Your task to perform on an android device: delete the emails in spam in the gmail app Image 0: 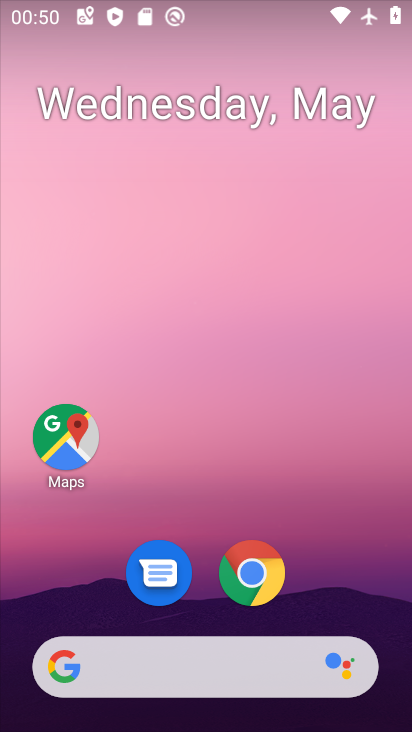
Step 0: drag from (338, 536) to (302, 349)
Your task to perform on an android device: delete the emails in spam in the gmail app Image 1: 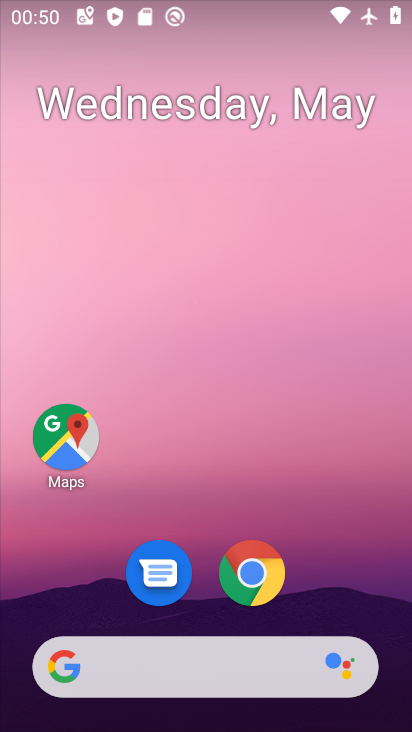
Step 1: drag from (321, 583) to (348, 183)
Your task to perform on an android device: delete the emails in spam in the gmail app Image 2: 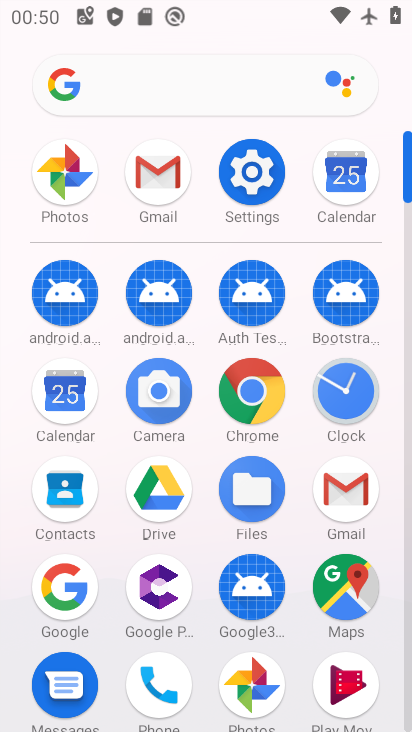
Step 2: click (330, 494)
Your task to perform on an android device: delete the emails in spam in the gmail app Image 3: 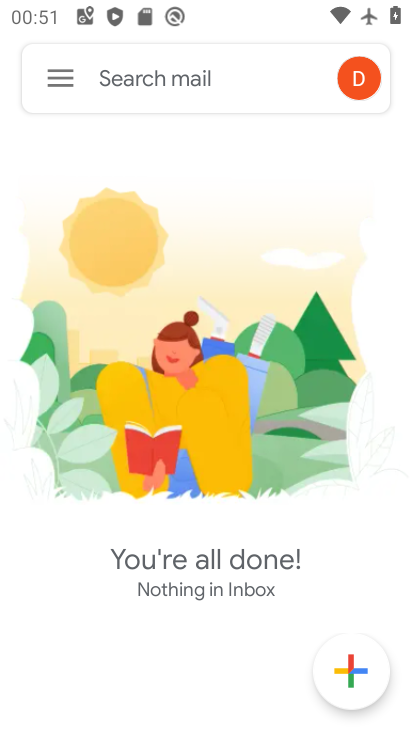
Step 3: click (67, 78)
Your task to perform on an android device: delete the emails in spam in the gmail app Image 4: 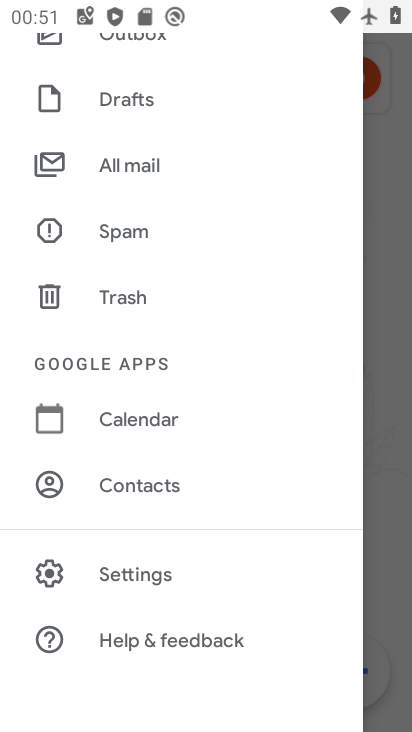
Step 4: drag from (136, 304) to (167, 216)
Your task to perform on an android device: delete the emails in spam in the gmail app Image 5: 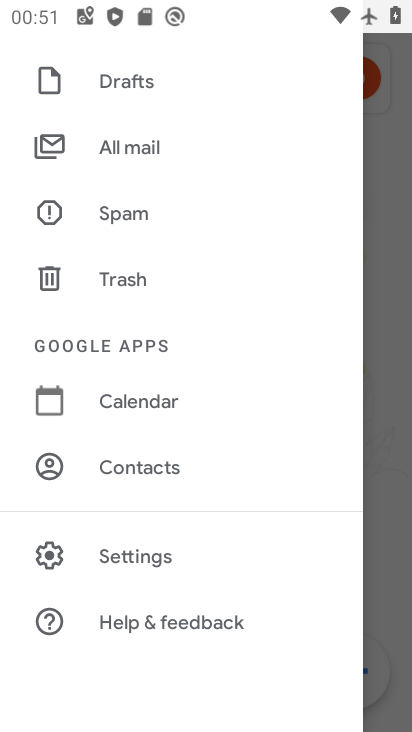
Step 5: click (118, 211)
Your task to perform on an android device: delete the emails in spam in the gmail app Image 6: 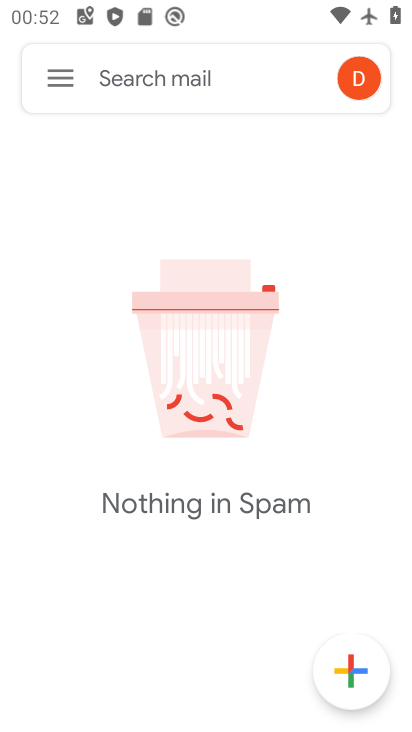
Step 6: task complete